Your task to perform on an android device: Go to internet settings Image 0: 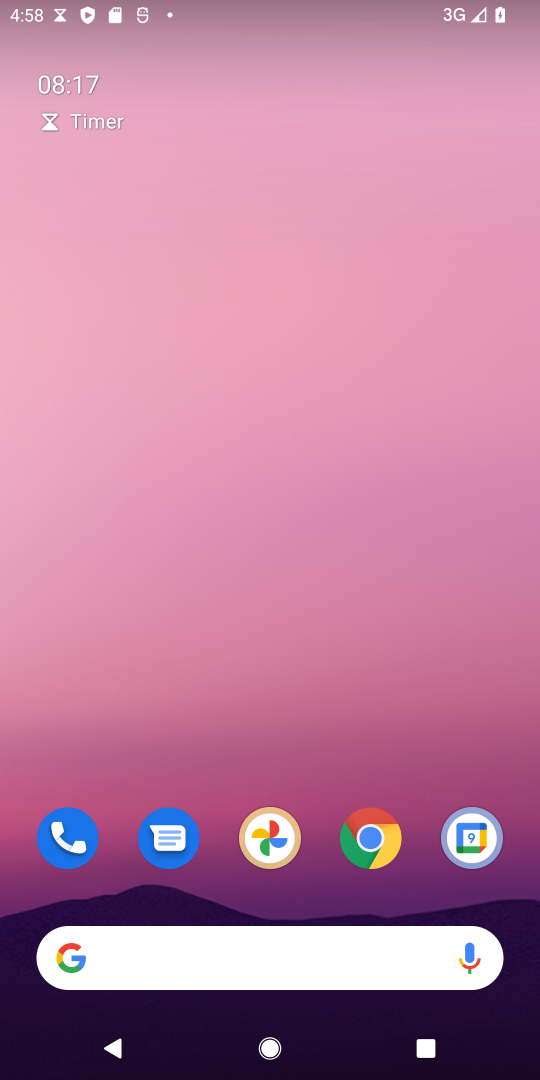
Step 0: drag from (349, 738) to (253, 6)
Your task to perform on an android device: Go to internet settings Image 1: 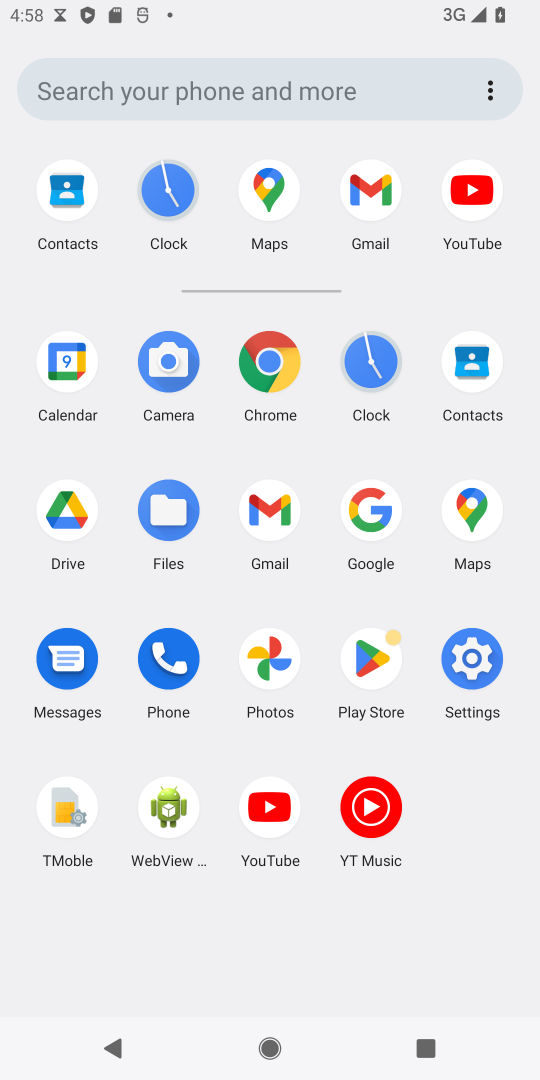
Step 1: click (477, 654)
Your task to perform on an android device: Go to internet settings Image 2: 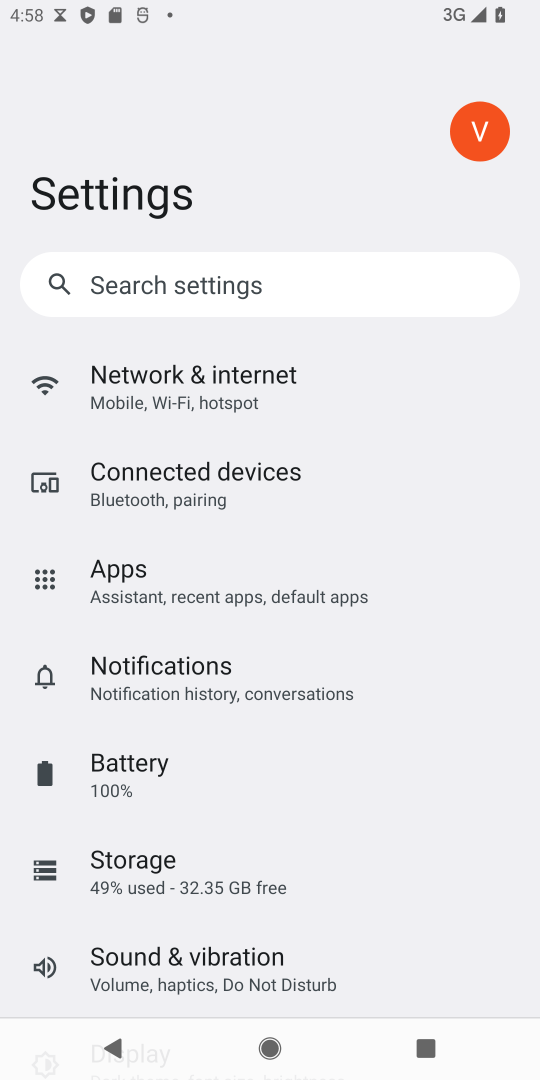
Step 2: click (255, 392)
Your task to perform on an android device: Go to internet settings Image 3: 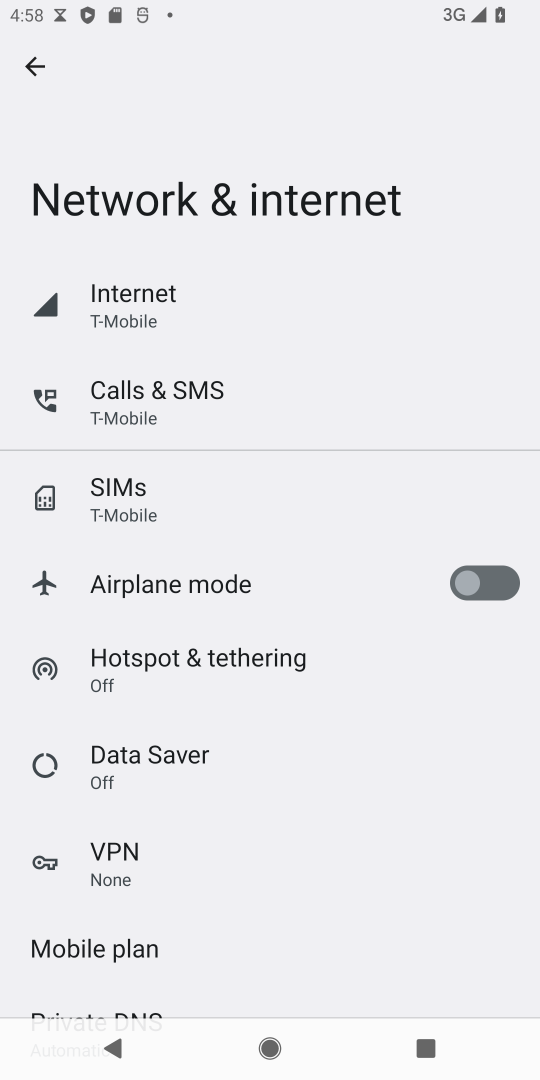
Step 3: click (200, 319)
Your task to perform on an android device: Go to internet settings Image 4: 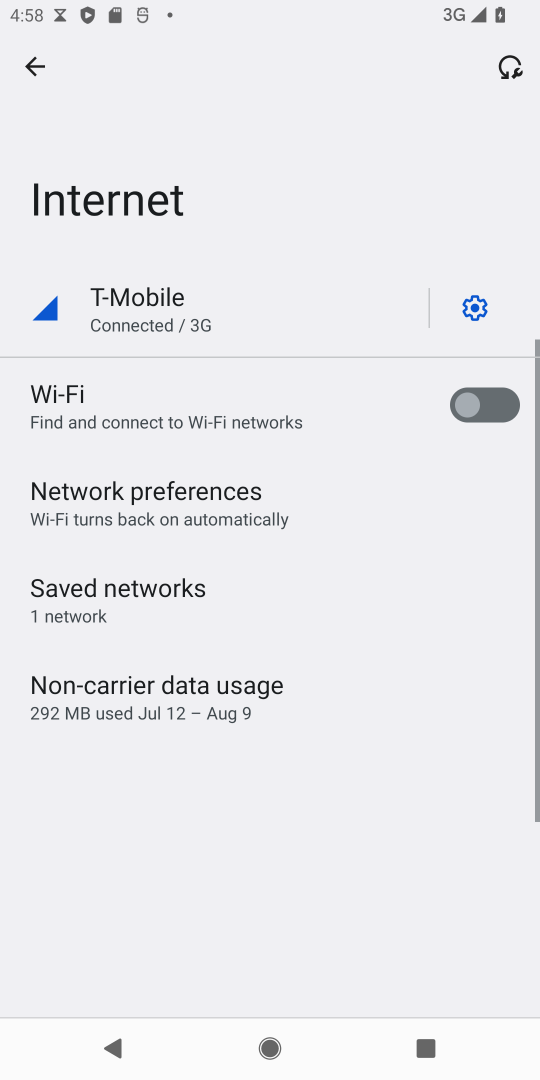
Step 4: task complete